Your task to perform on an android device: Set an alarm for 11am Image 0: 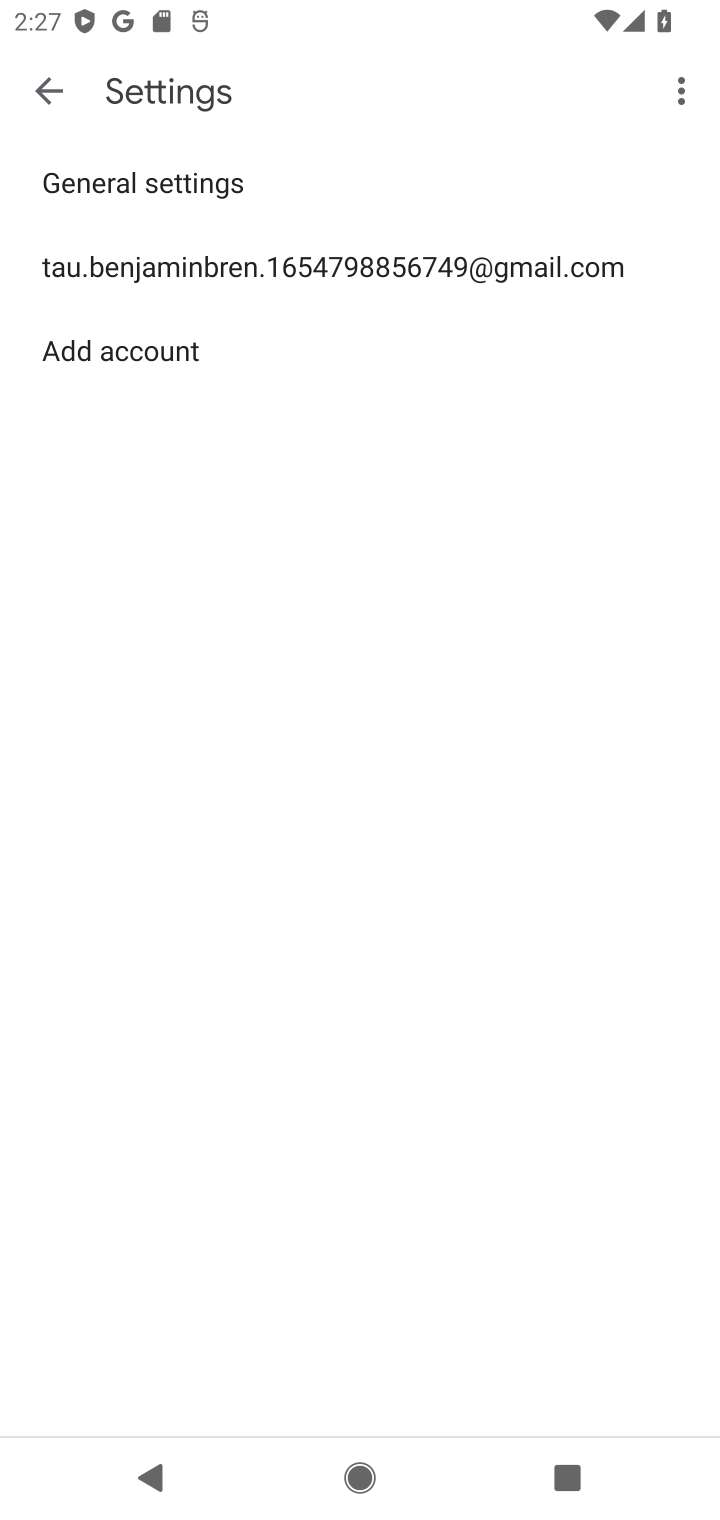
Step 0: press home button
Your task to perform on an android device: Set an alarm for 11am Image 1: 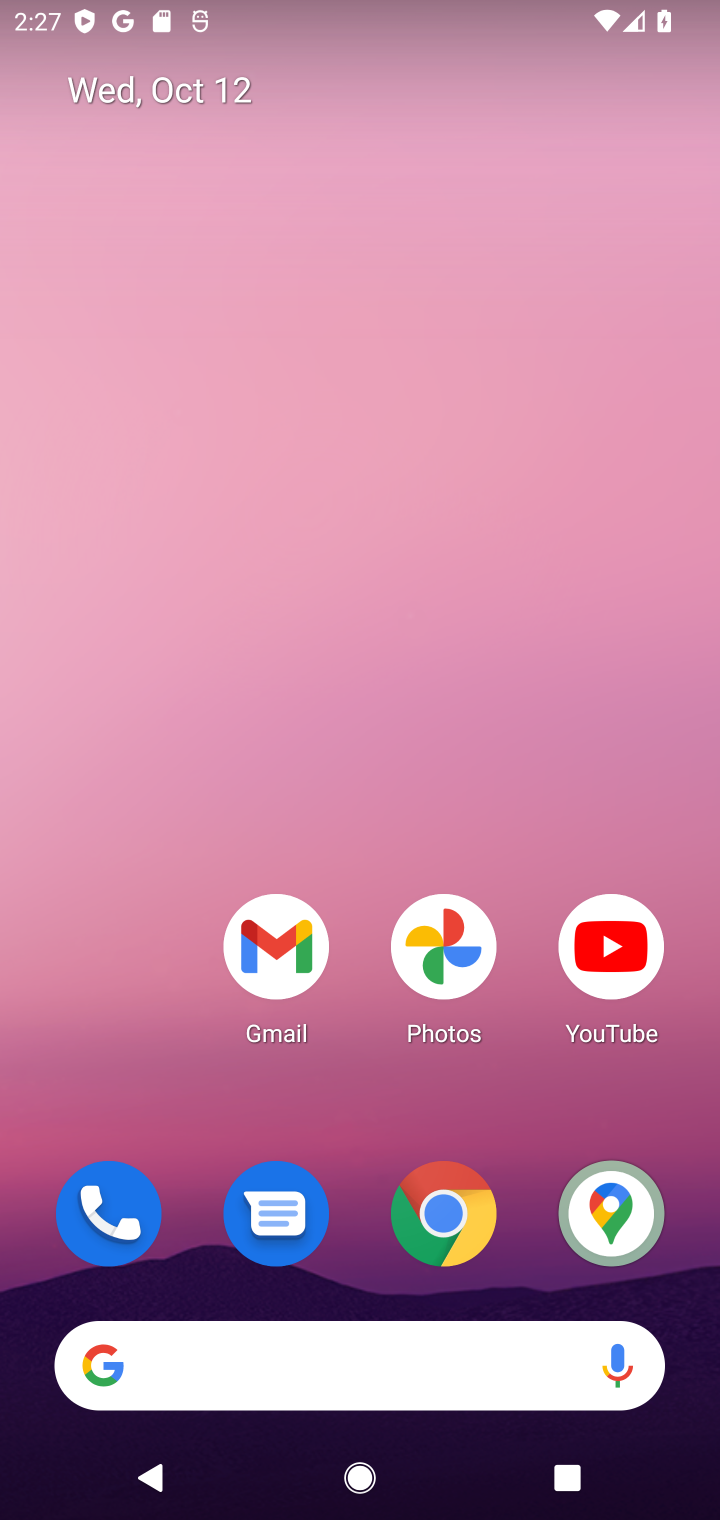
Step 1: drag from (183, 1070) to (397, 147)
Your task to perform on an android device: Set an alarm for 11am Image 2: 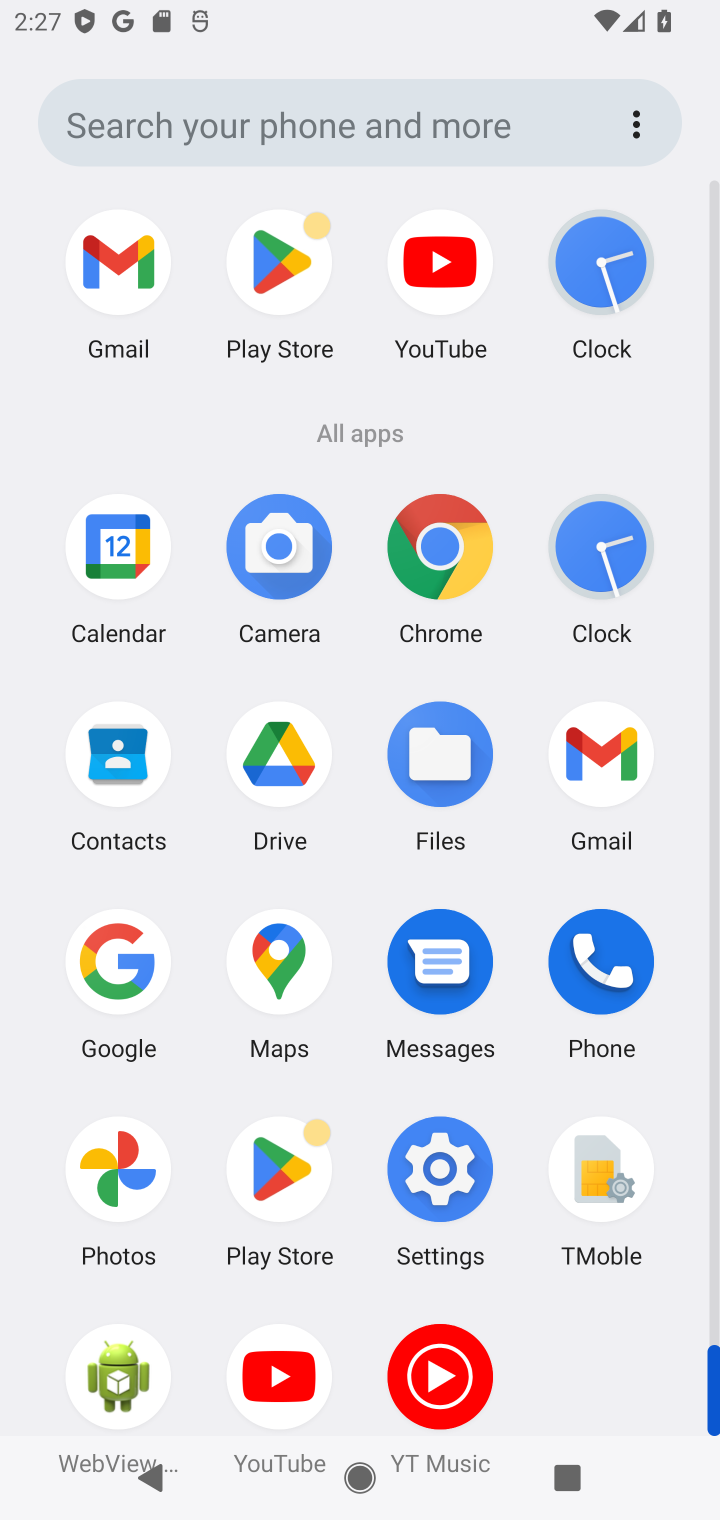
Step 2: click (596, 521)
Your task to perform on an android device: Set an alarm for 11am Image 3: 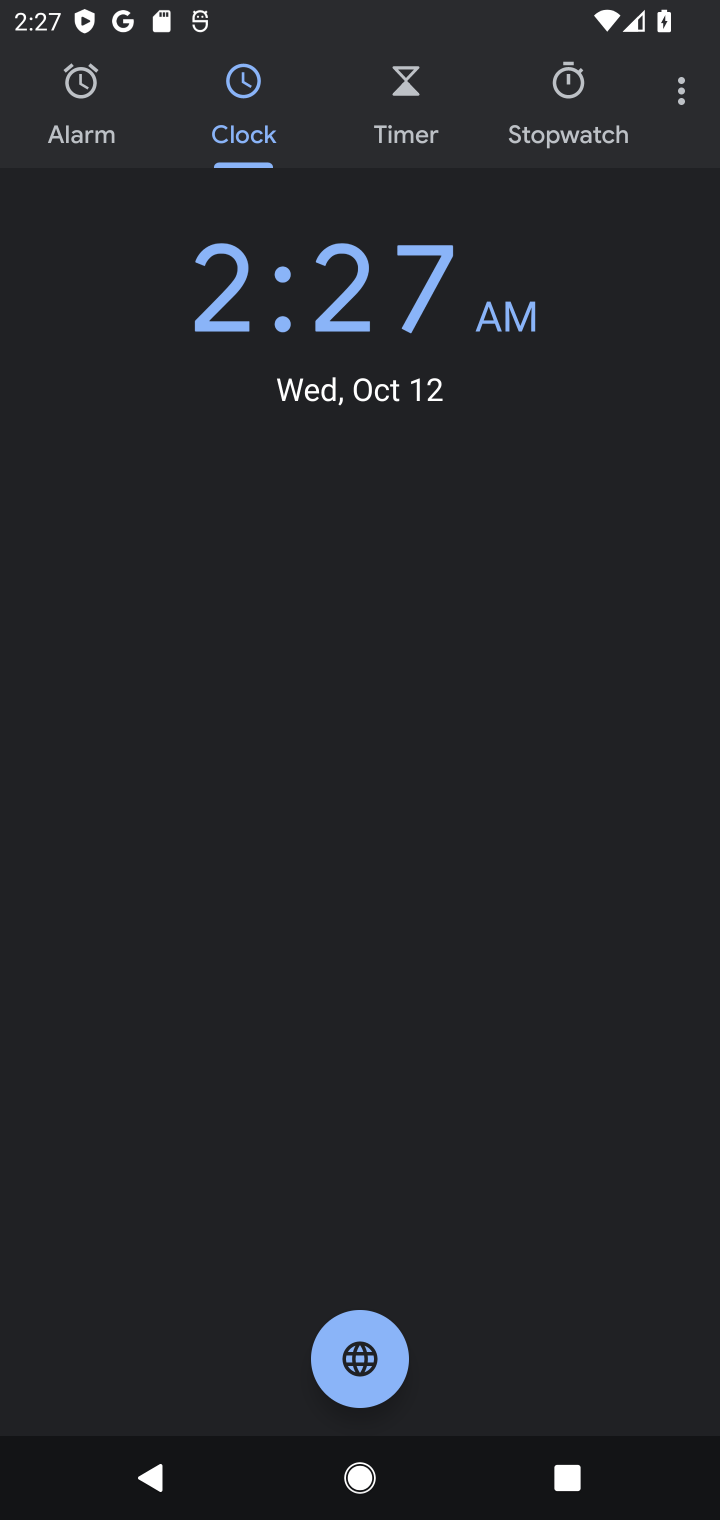
Step 3: click (97, 119)
Your task to perform on an android device: Set an alarm for 11am Image 4: 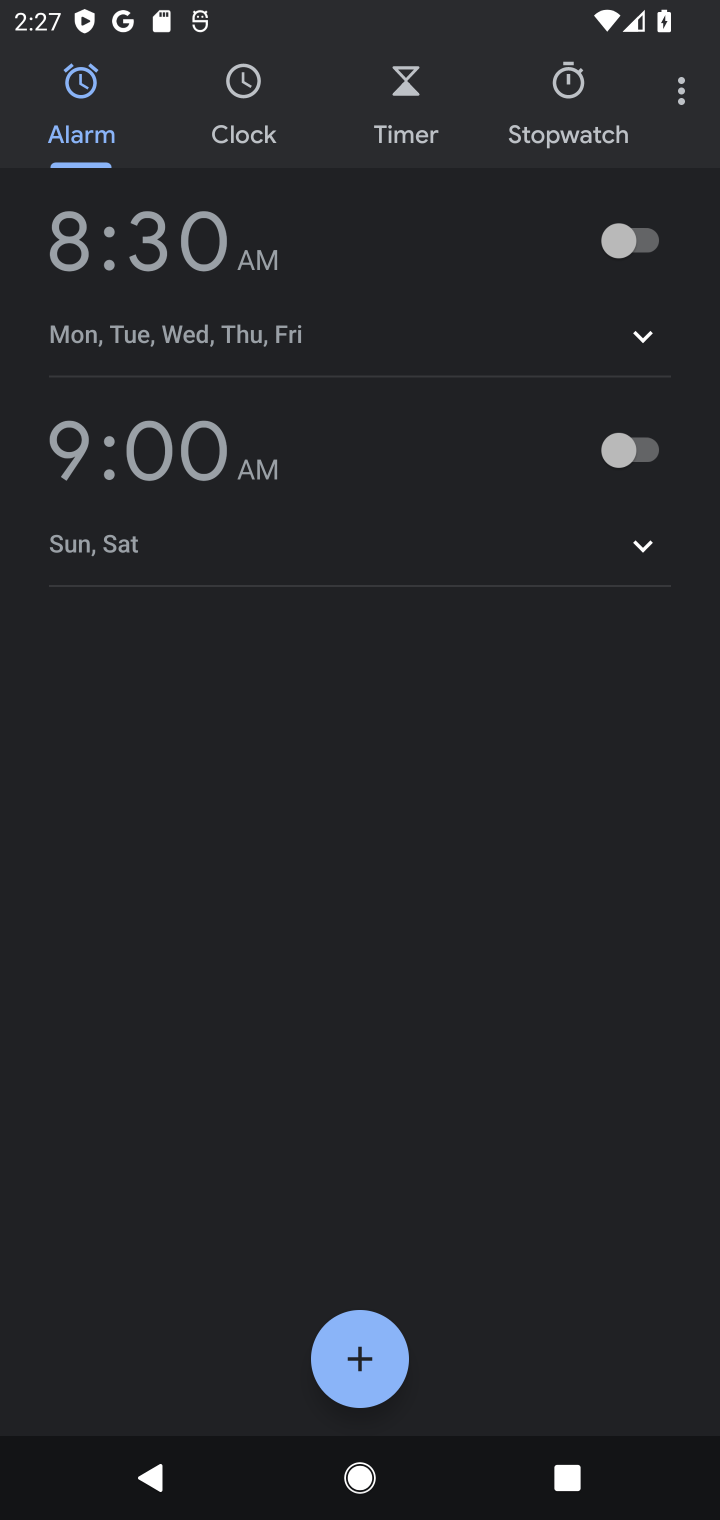
Step 4: click (172, 420)
Your task to perform on an android device: Set an alarm for 11am Image 5: 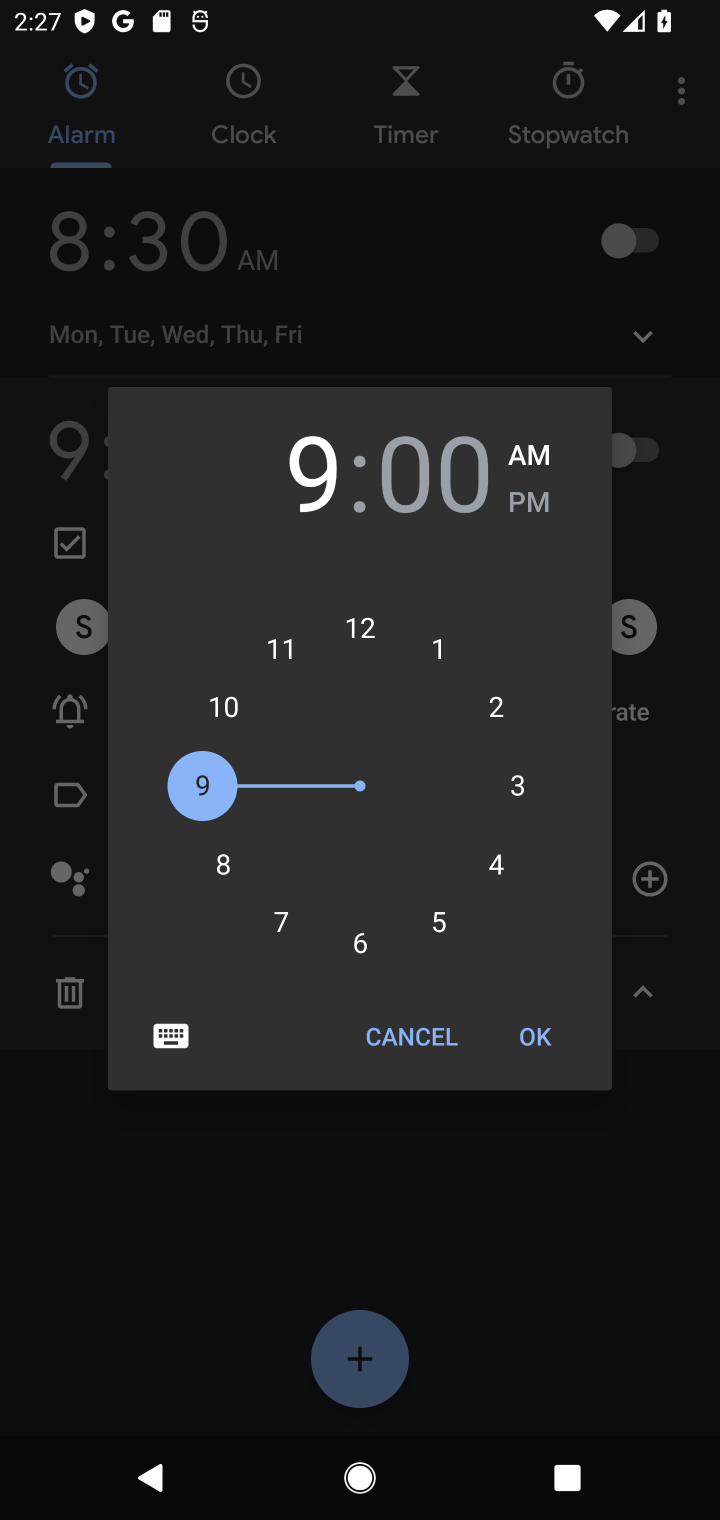
Step 5: click (273, 664)
Your task to perform on an android device: Set an alarm for 11am Image 6: 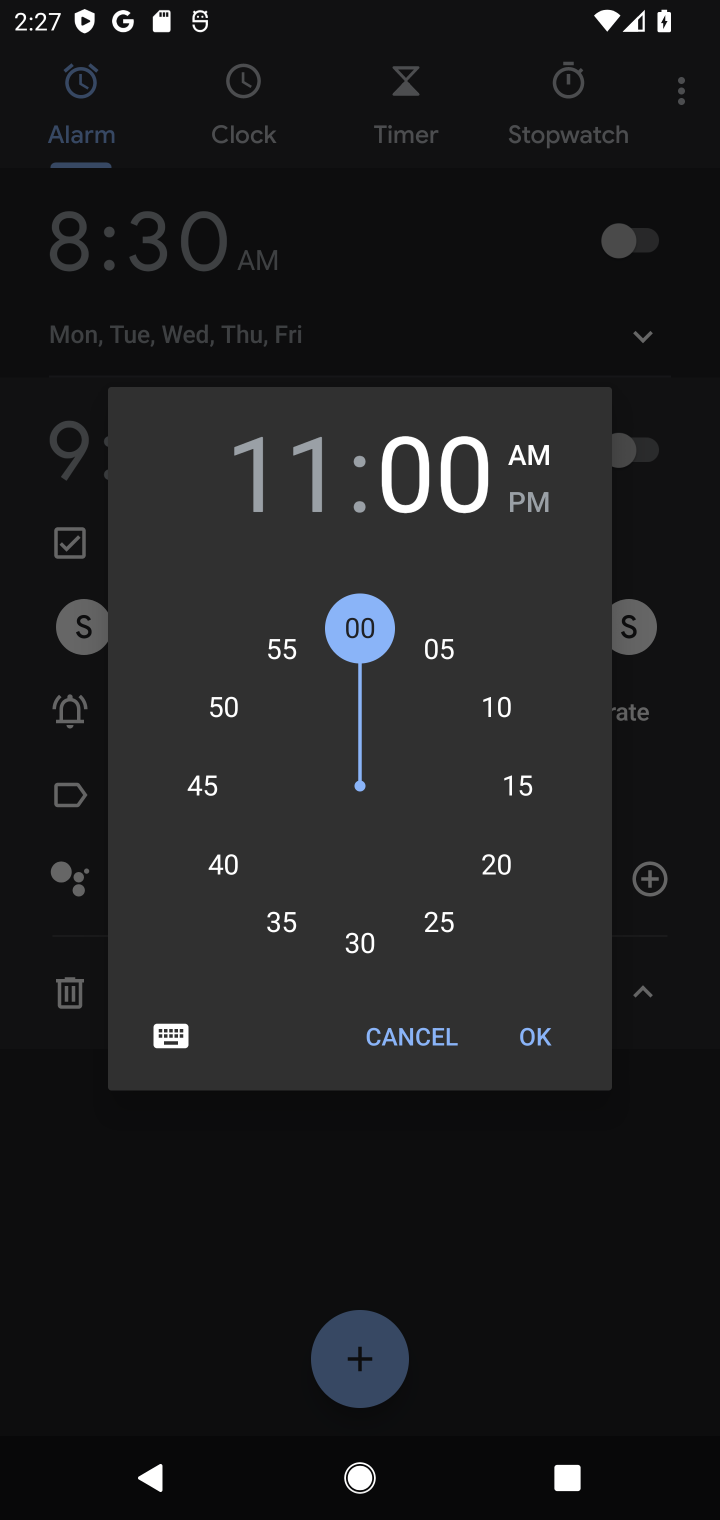
Step 6: task complete